Your task to perform on an android device: turn on showing notifications on the lock screen Image 0: 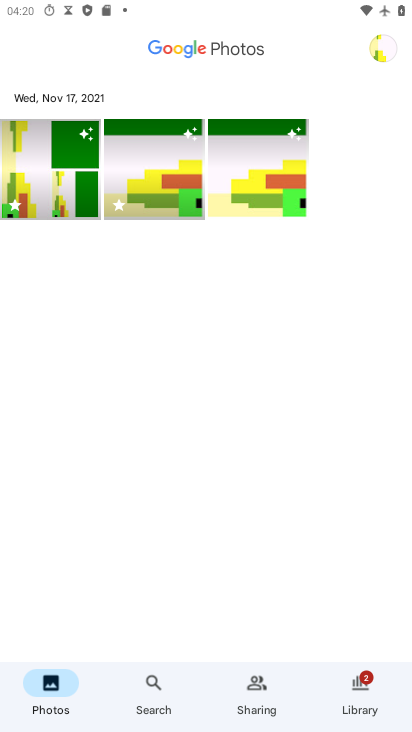
Step 0: press back button
Your task to perform on an android device: turn on showing notifications on the lock screen Image 1: 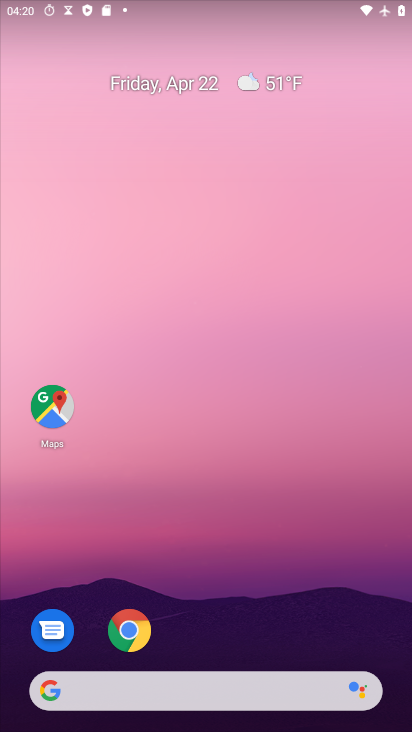
Step 1: drag from (250, 524) to (213, 26)
Your task to perform on an android device: turn on showing notifications on the lock screen Image 2: 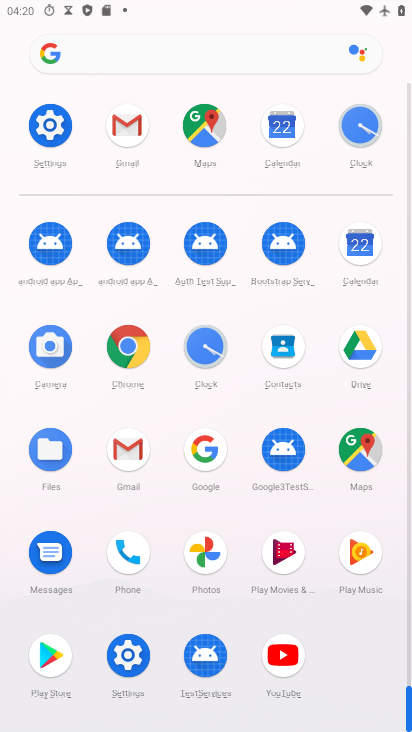
Step 2: drag from (12, 515) to (14, 314)
Your task to perform on an android device: turn on showing notifications on the lock screen Image 3: 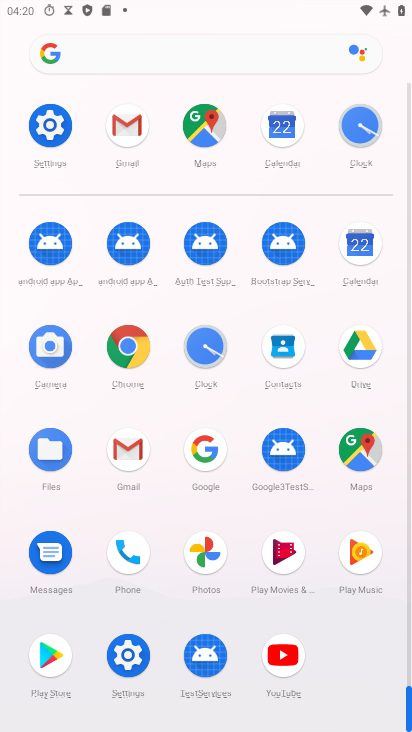
Step 3: click (47, 126)
Your task to perform on an android device: turn on showing notifications on the lock screen Image 4: 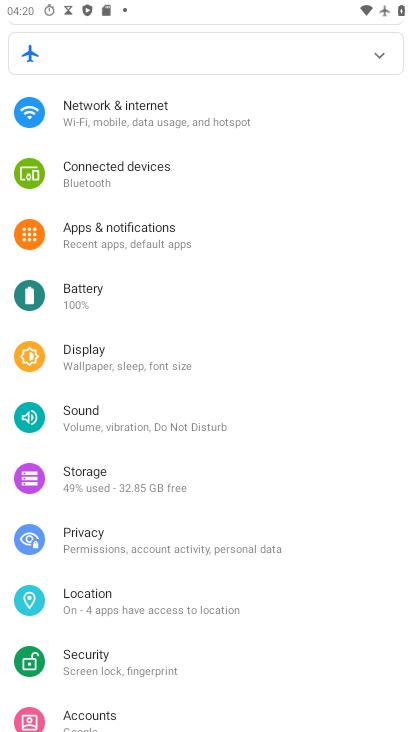
Step 4: click (127, 236)
Your task to perform on an android device: turn on showing notifications on the lock screen Image 5: 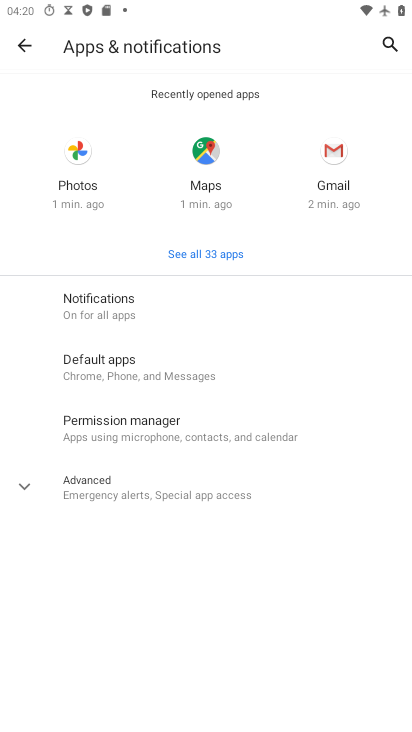
Step 5: click (164, 308)
Your task to perform on an android device: turn on showing notifications on the lock screen Image 6: 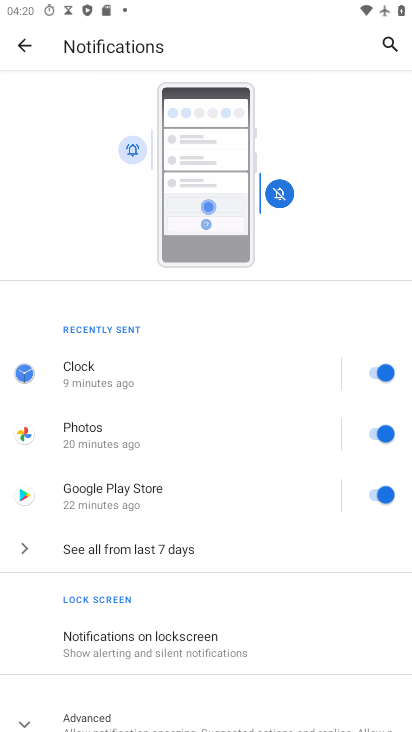
Step 6: drag from (196, 546) to (230, 265)
Your task to perform on an android device: turn on showing notifications on the lock screen Image 7: 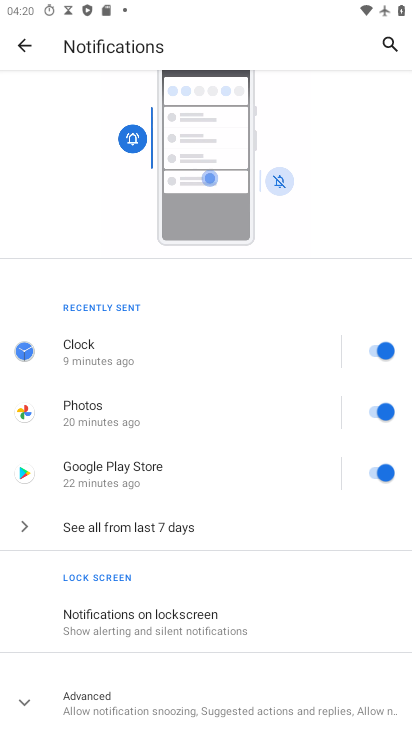
Step 7: drag from (204, 604) to (248, 206)
Your task to perform on an android device: turn on showing notifications on the lock screen Image 8: 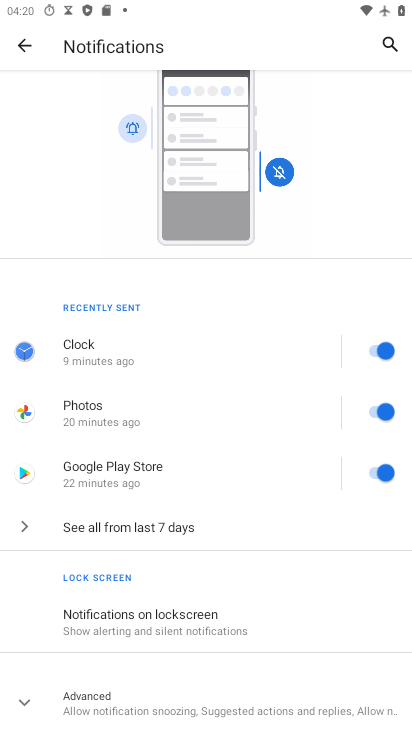
Step 8: click (195, 613)
Your task to perform on an android device: turn on showing notifications on the lock screen Image 9: 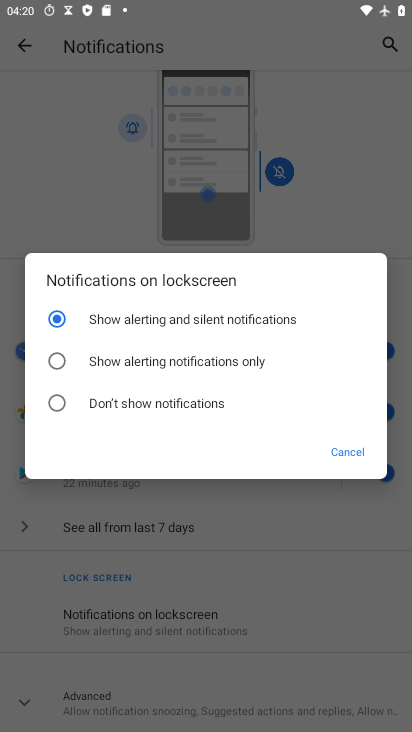
Step 9: click (178, 314)
Your task to perform on an android device: turn on showing notifications on the lock screen Image 10: 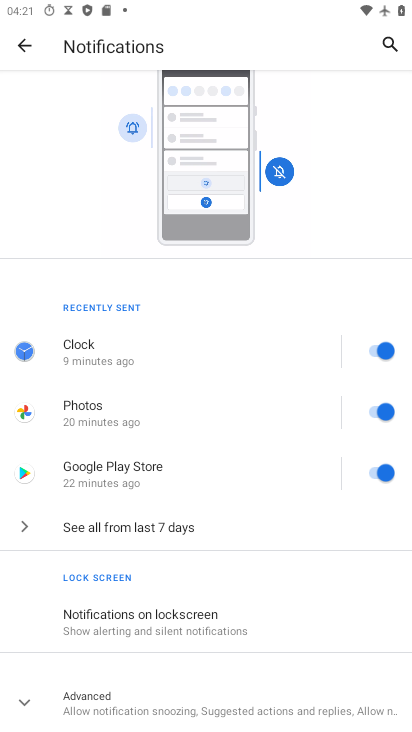
Step 10: task complete